Your task to perform on an android device: Do I have any events today? Image 0: 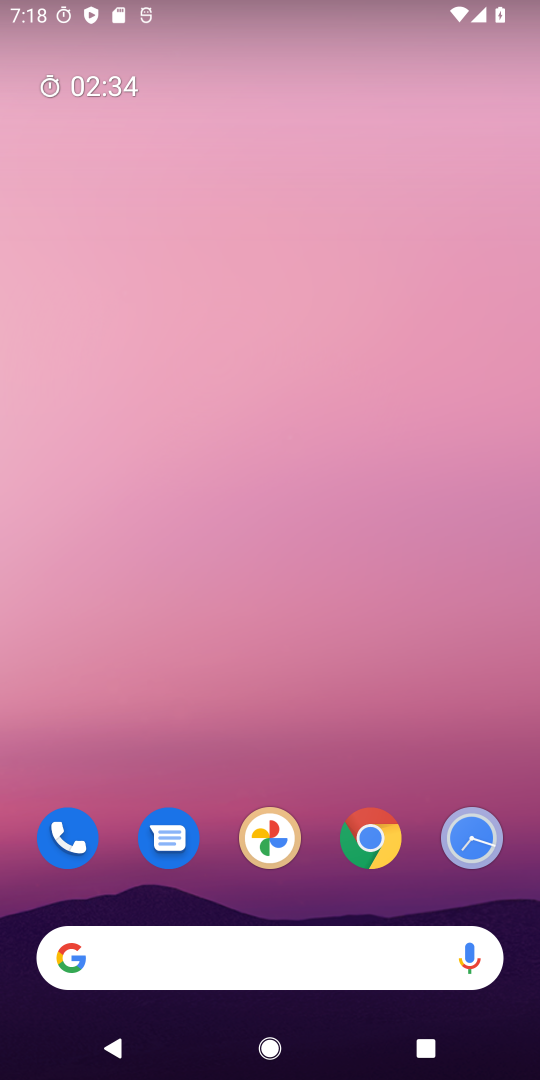
Step 0: drag from (303, 884) to (464, 0)
Your task to perform on an android device: Do I have any events today? Image 1: 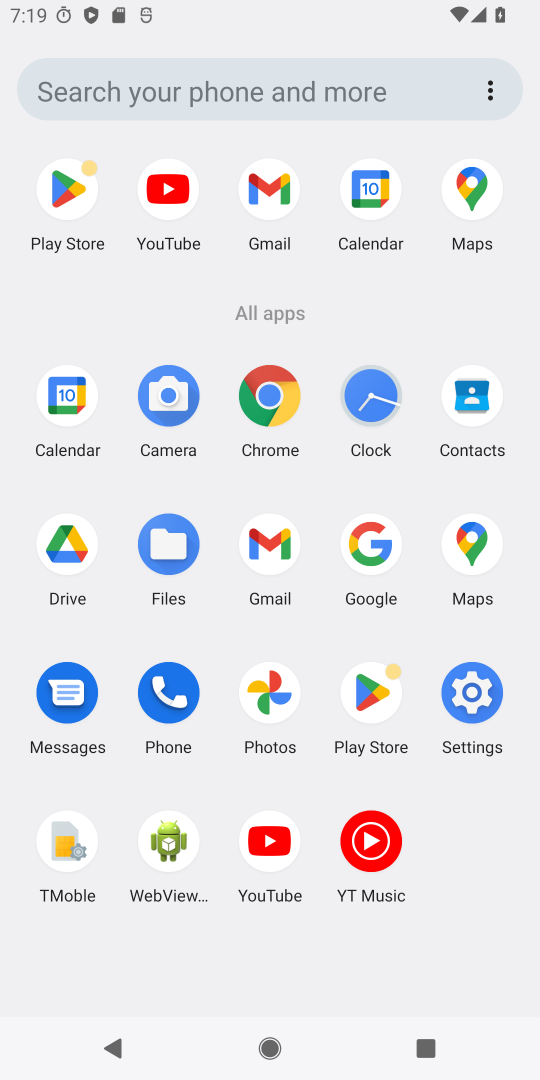
Step 1: click (57, 400)
Your task to perform on an android device: Do I have any events today? Image 2: 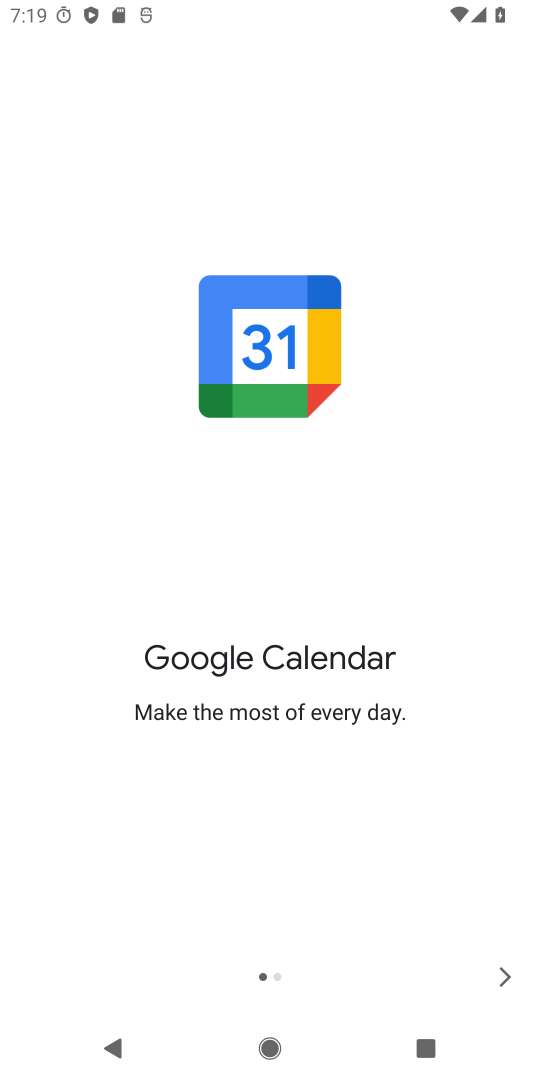
Step 2: click (503, 982)
Your task to perform on an android device: Do I have any events today? Image 3: 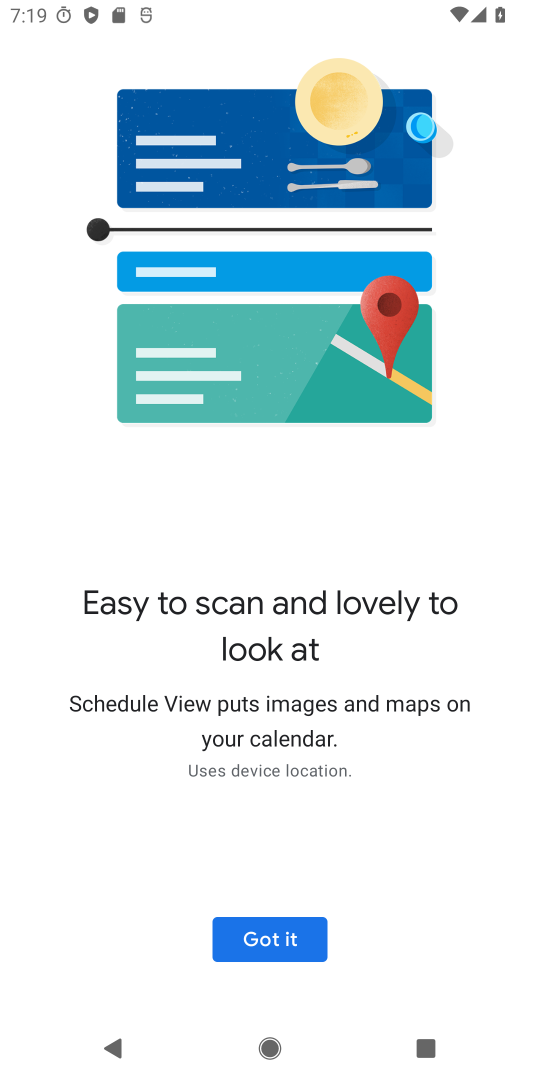
Step 3: click (503, 982)
Your task to perform on an android device: Do I have any events today? Image 4: 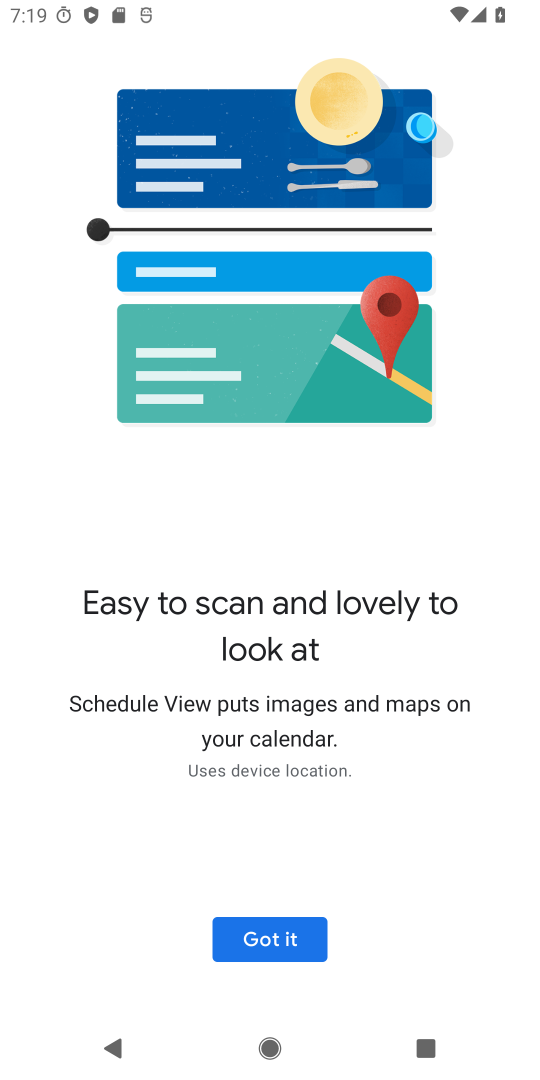
Step 4: click (271, 941)
Your task to perform on an android device: Do I have any events today? Image 5: 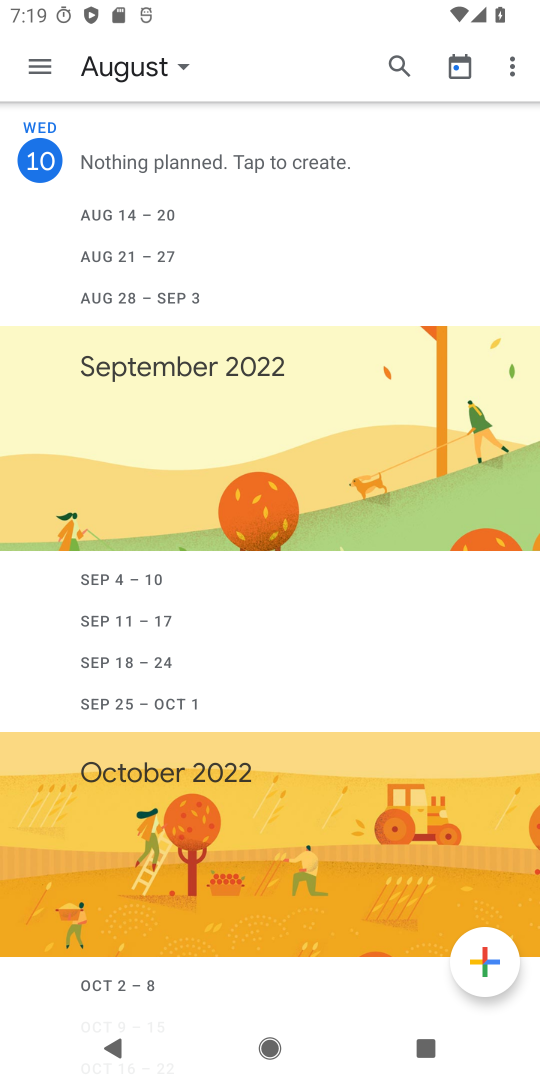
Step 5: click (174, 68)
Your task to perform on an android device: Do I have any events today? Image 6: 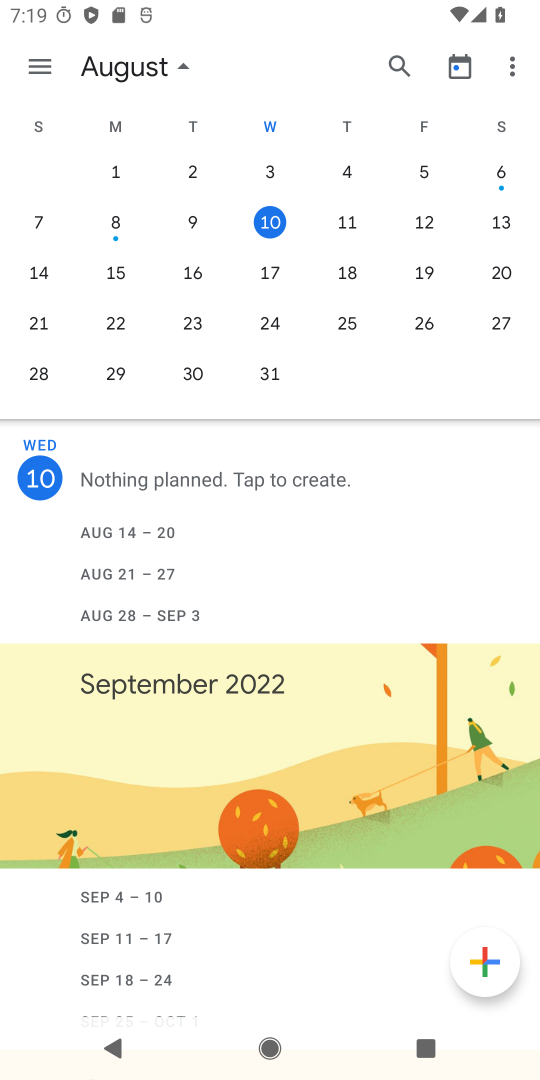
Step 6: task complete